Your task to perform on an android device: What's the weather going to be this weekend? Image 0: 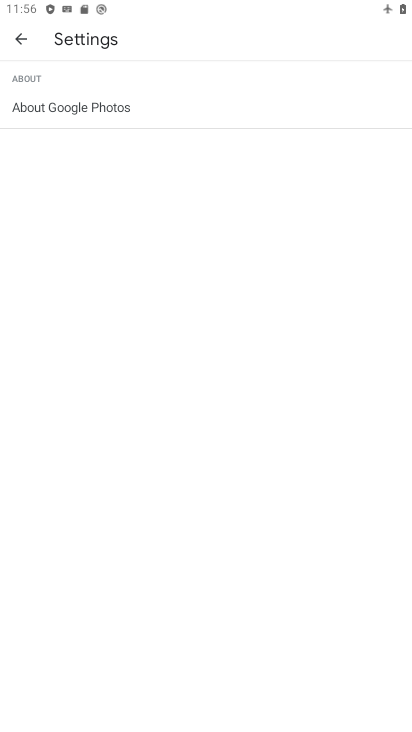
Step 0: press back button
Your task to perform on an android device: What's the weather going to be this weekend? Image 1: 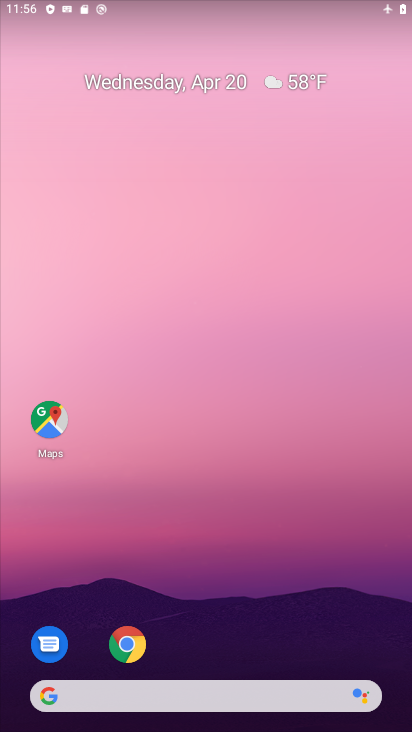
Step 1: press home button
Your task to perform on an android device: What's the weather going to be this weekend? Image 2: 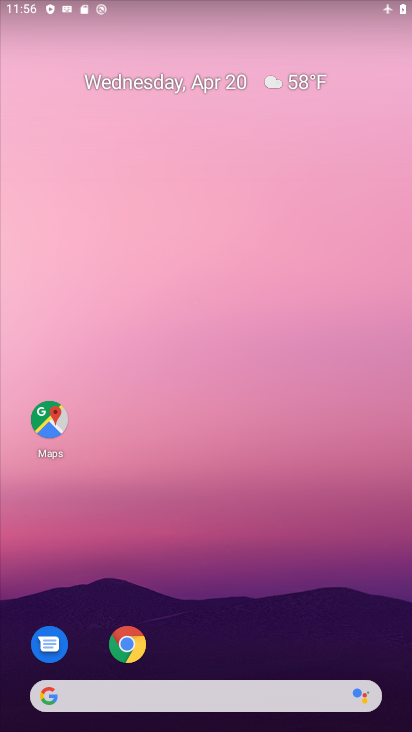
Step 2: click (125, 646)
Your task to perform on an android device: What's the weather going to be this weekend? Image 3: 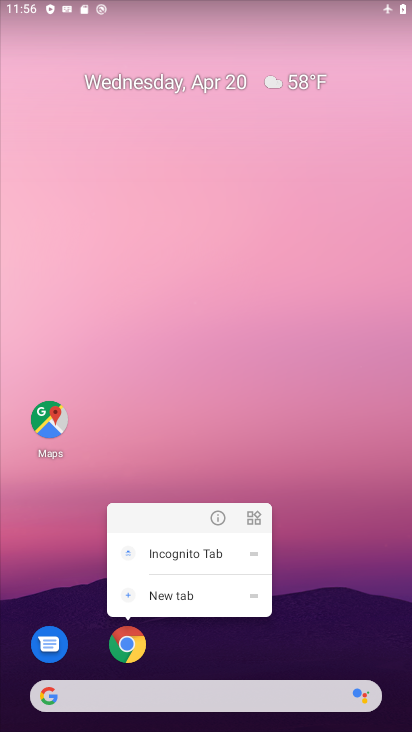
Step 3: click (215, 520)
Your task to perform on an android device: What's the weather going to be this weekend? Image 4: 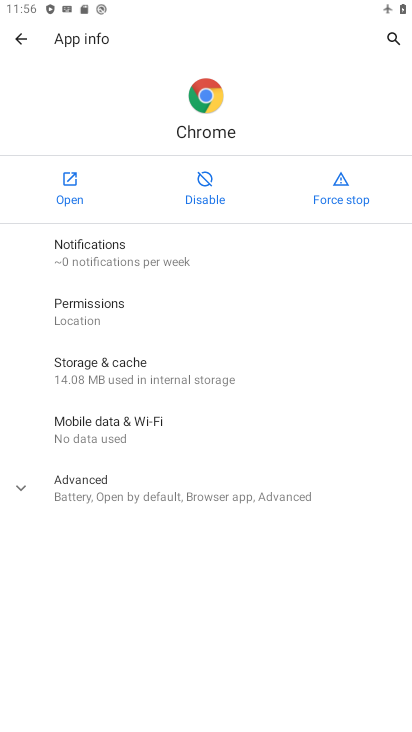
Step 4: click (72, 203)
Your task to perform on an android device: What's the weather going to be this weekend? Image 5: 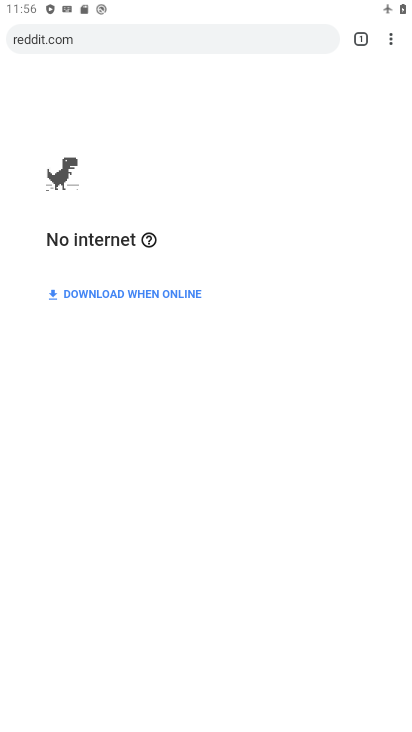
Step 5: task complete